Your task to perform on an android device: What's on my calendar tomorrow? Image 0: 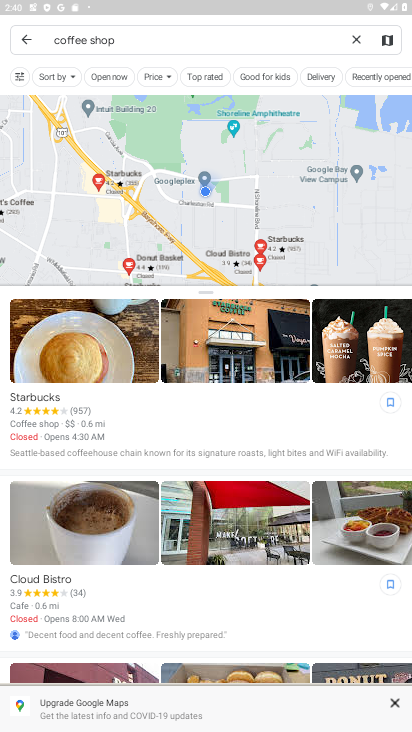
Step 0: press home button
Your task to perform on an android device: What's on my calendar tomorrow? Image 1: 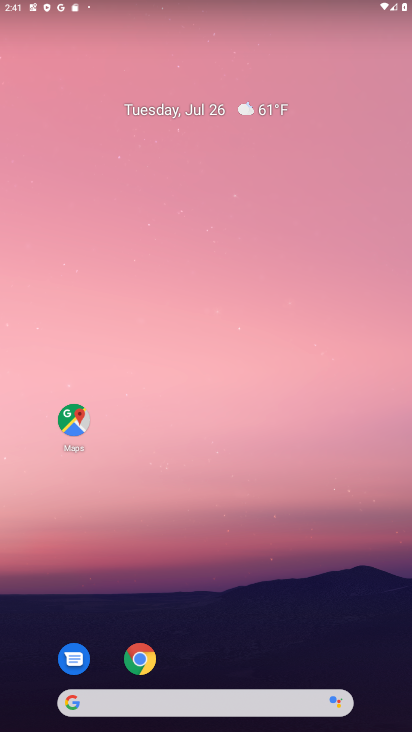
Step 1: click (397, 168)
Your task to perform on an android device: What's on my calendar tomorrow? Image 2: 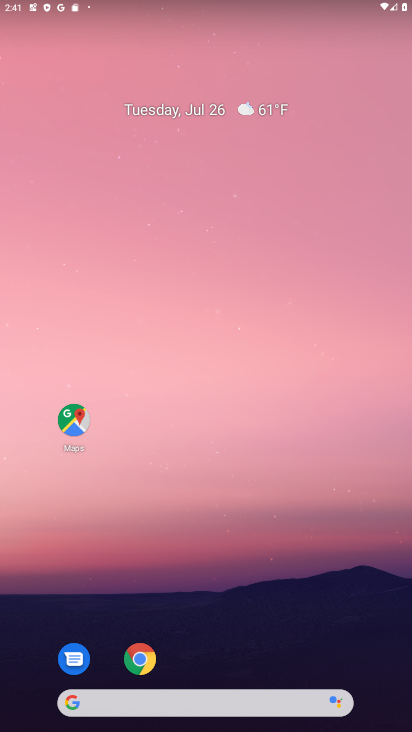
Step 2: drag from (367, 656) to (293, 213)
Your task to perform on an android device: What's on my calendar tomorrow? Image 3: 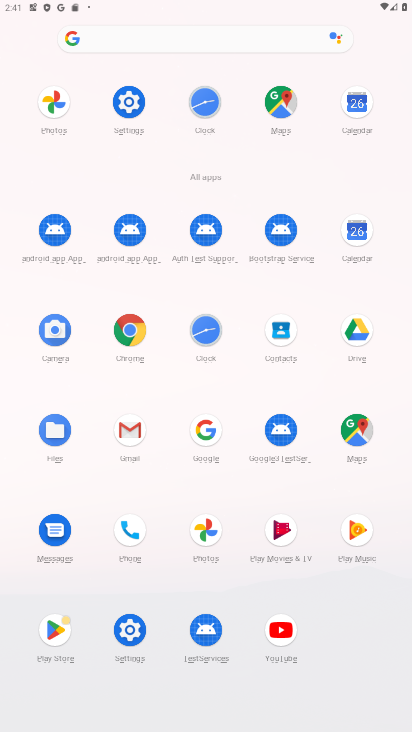
Step 3: click (355, 238)
Your task to perform on an android device: What's on my calendar tomorrow? Image 4: 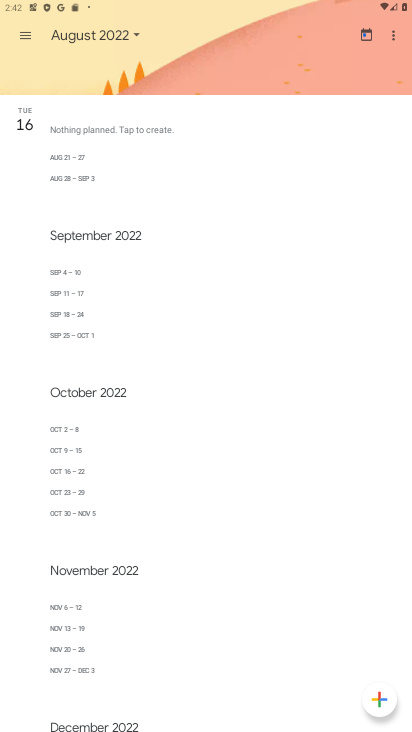
Step 4: click (20, 36)
Your task to perform on an android device: What's on my calendar tomorrow? Image 5: 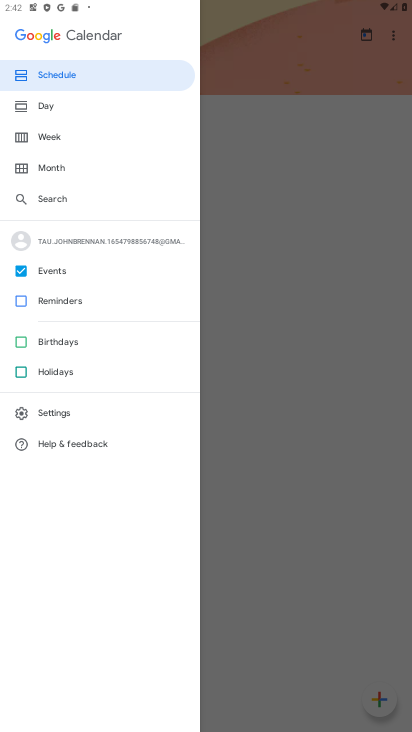
Step 5: click (49, 108)
Your task to perform on an android device: What's on my calendar tomorrow? Image 6: 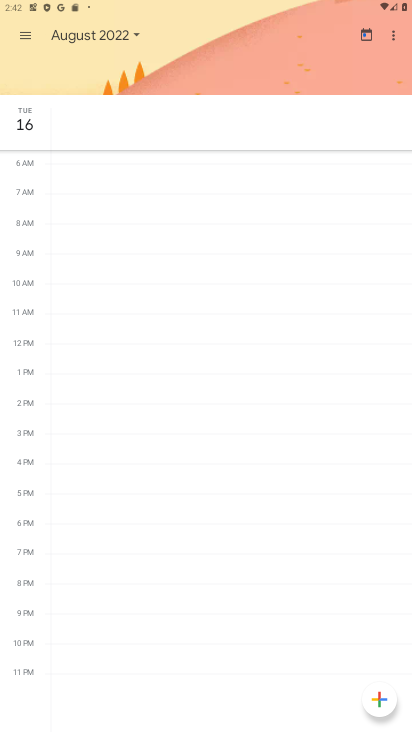
Step 6: click (130, 36)
Your task to perform on an android device: What's on my calendar tomorrow? Image 7: 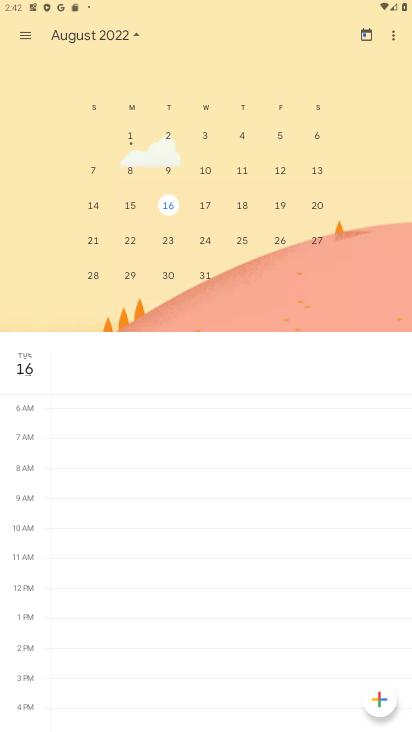
Step 7: drag from (221, 242) to (405, 248)
Your task to perform on an android device: What's on my calendar tomorrow? Image 8: 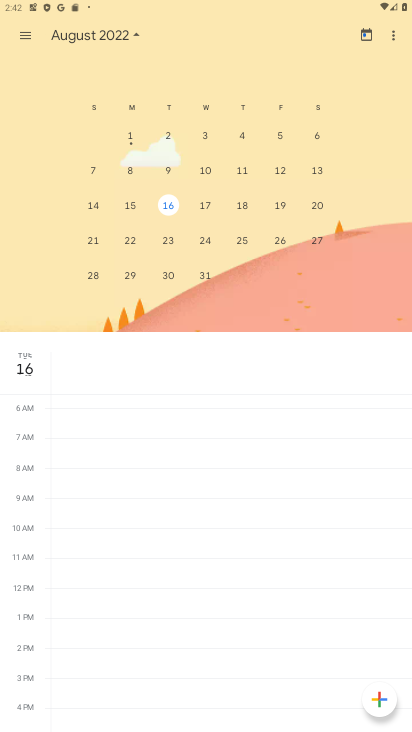
Step 8: drag from (238, 185) to (383, 177)
Your task to perform on an android device: What's on my calendar tomorrow? Image 9: 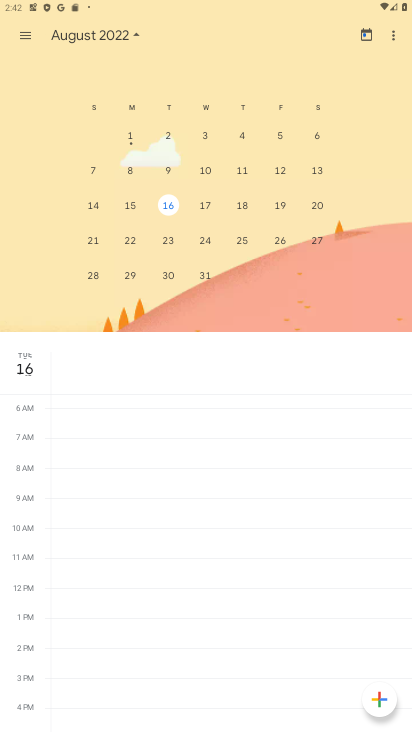
Step 9: drag from (77, 186) to (392, 192)
Your task to perform on an android device: What's on my calendar tomorrow? Image 10: 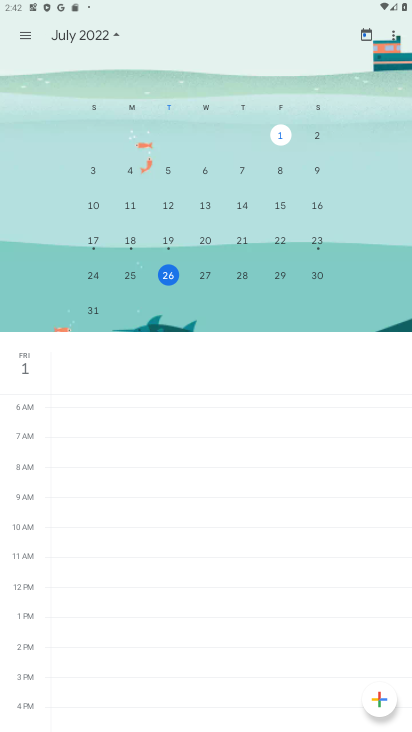
Step 10: click (206, 274)
Your task to perform on an android device: What's on my calendar tomorrow? Image 11: 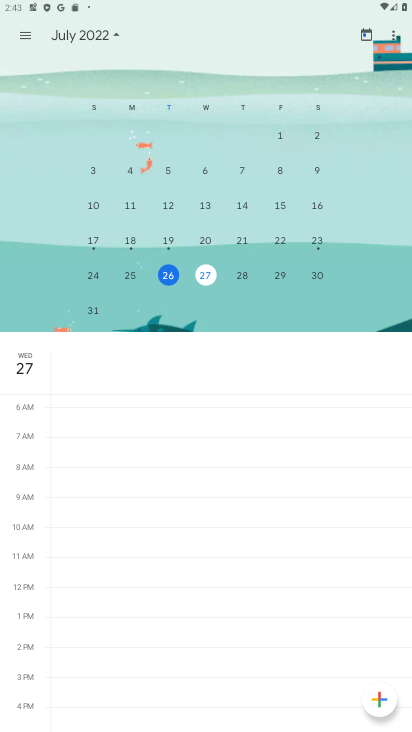
Step 11: click (20, 34)
Your task to perform on an android device: What's on my calendar tomorrow? Image 12: 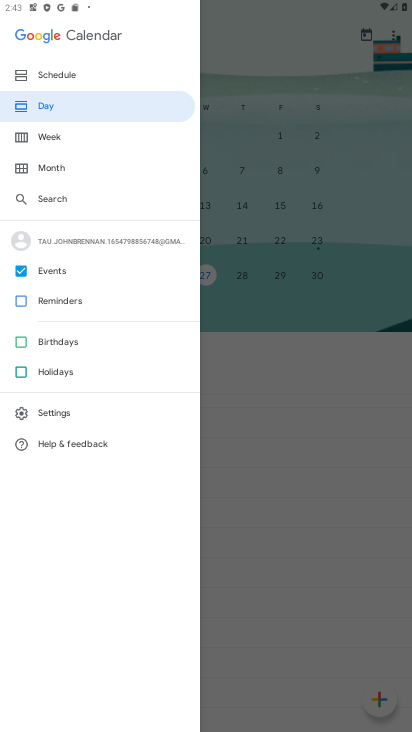
Step 12: click (50, 69)
Your task to perform on an android device: What's on my calendar tomorrow? Image 13: 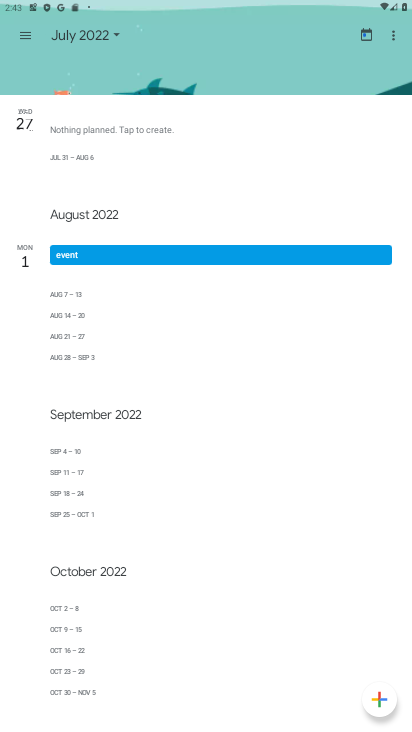
Step 13: task complete